Your task to perform on an android device: Go to privacy settings Image 0: 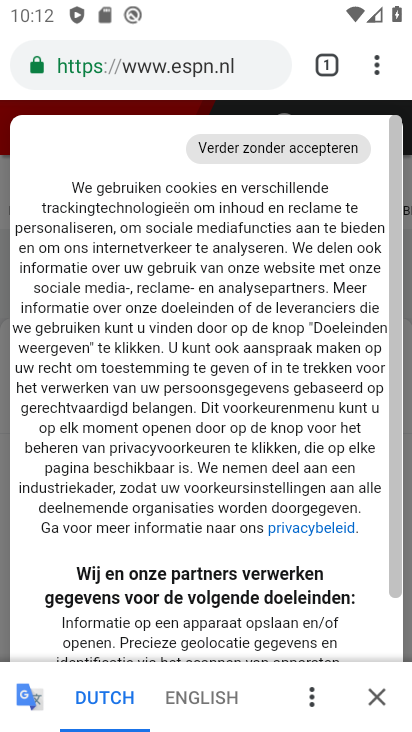
Step 0: press back button
Your task to perform on an android device: Go to privacy settings Image 1: 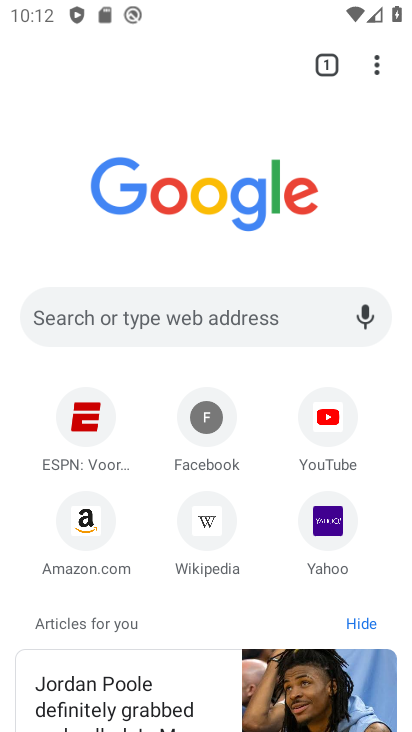
Step 1: press back button
Your task to perform on an android device: Go to privacy settings Image 2: 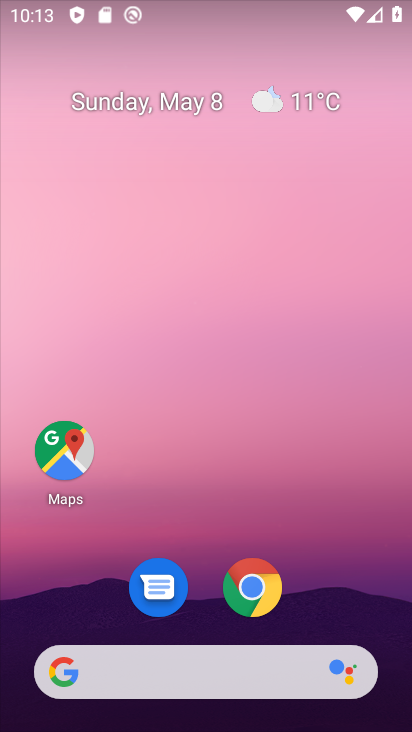
Step 2: drag from (181, 674) to (251, 246)
Your task to perform on an android device: Go to privacy settings Image 3: 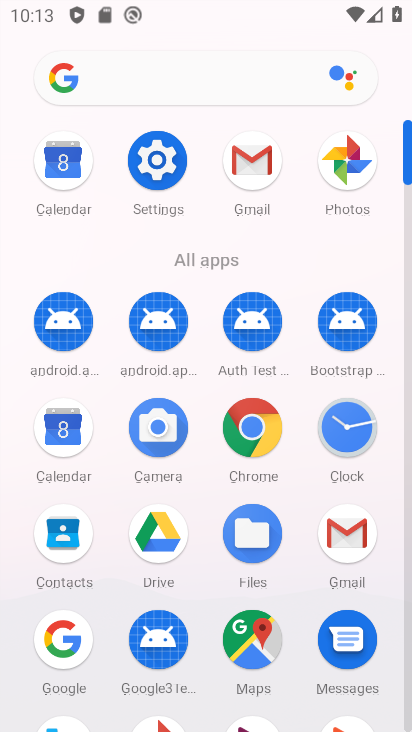
Step 3: click (164, 159)
Your task to perform on an android device: Go to privacy settings Image 4: 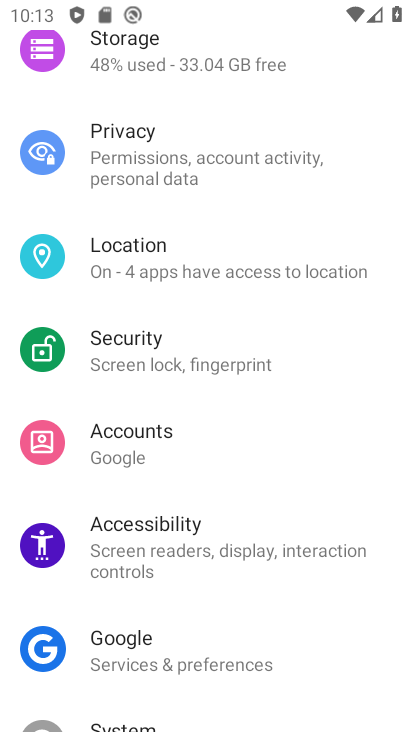
Step 4: drag from (144, 535) to (107, 561)
Your task to perform on an android device: Go to privacy settings Image 5: 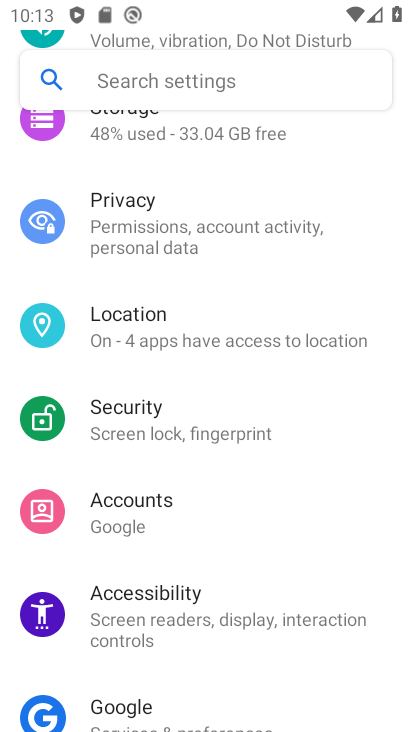
Step 5: click (163, 248)
Your task to perform on an android device: Go to privacy settings Image 6: 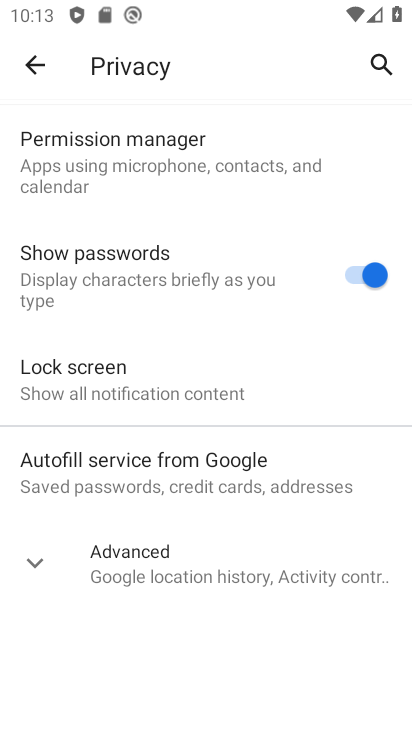
Step 6: task complete